Your task to perform on an android device: Go to eBay Image 0: 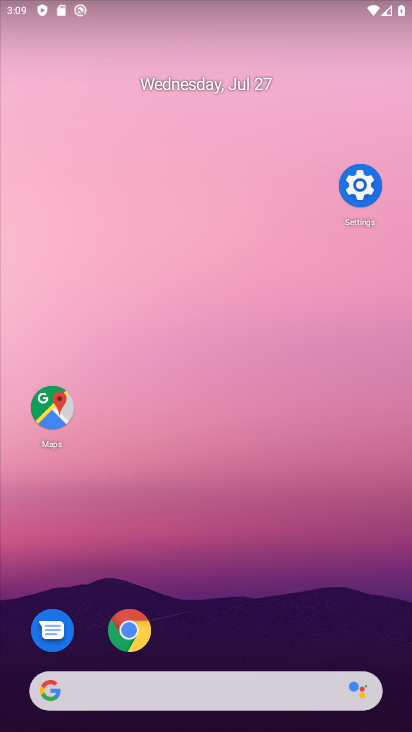
Step 0: press home button
Your task to perform on an android device: Go to eBay Image 1: 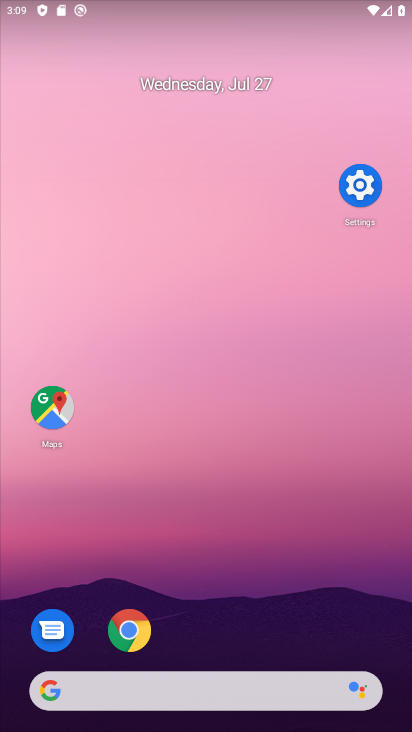
Step 1: click (46, 694)
Your task to perform on an android device: Go to eBay Image 2: 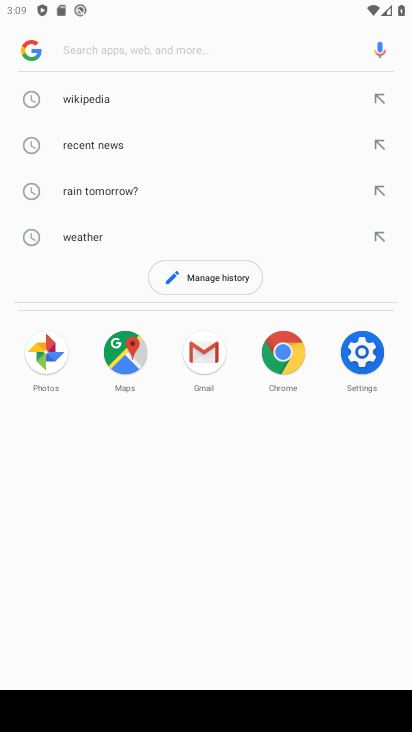
Step 2: type " eBay"
Your task to perform on an android device: Go to eBay Image 3: 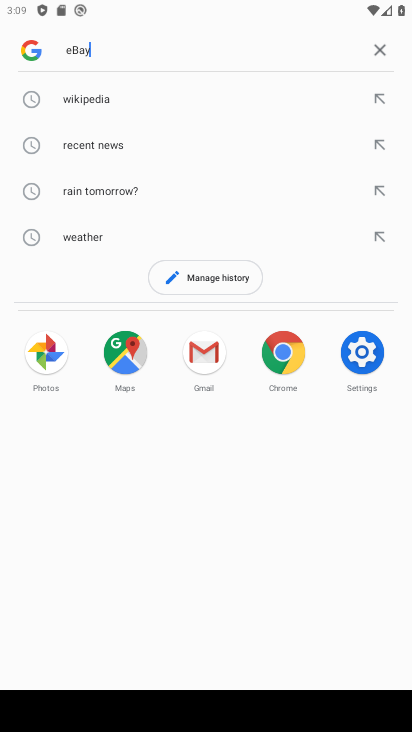
Step 3: press enter
Your task to perform on an android device: Go to eBay Image 4: 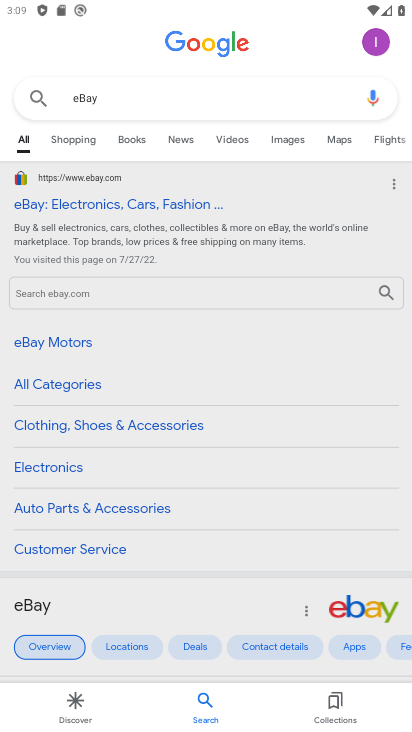
Step 4: click (131, 211)
Your task to perform on an android device: Go to eBay Image 5: 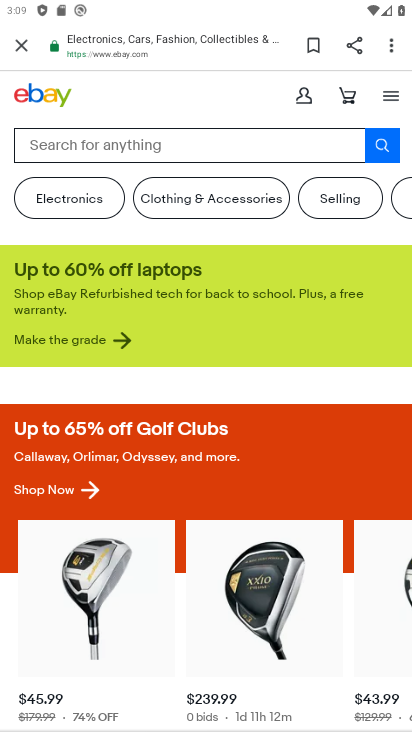
Step 5: task complete